Your task to perform on an android device: How do I get to the nearest Chipotle? Image 0: 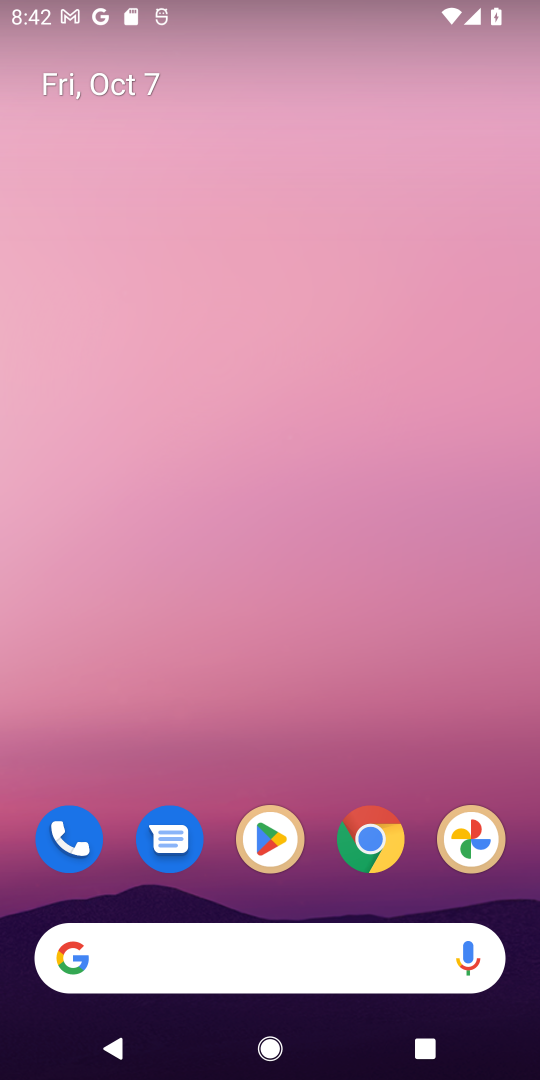
Step 0: click (361, 836)
Your task to perform on an android device: How do I get to the nearest Chipotle? Image 1: 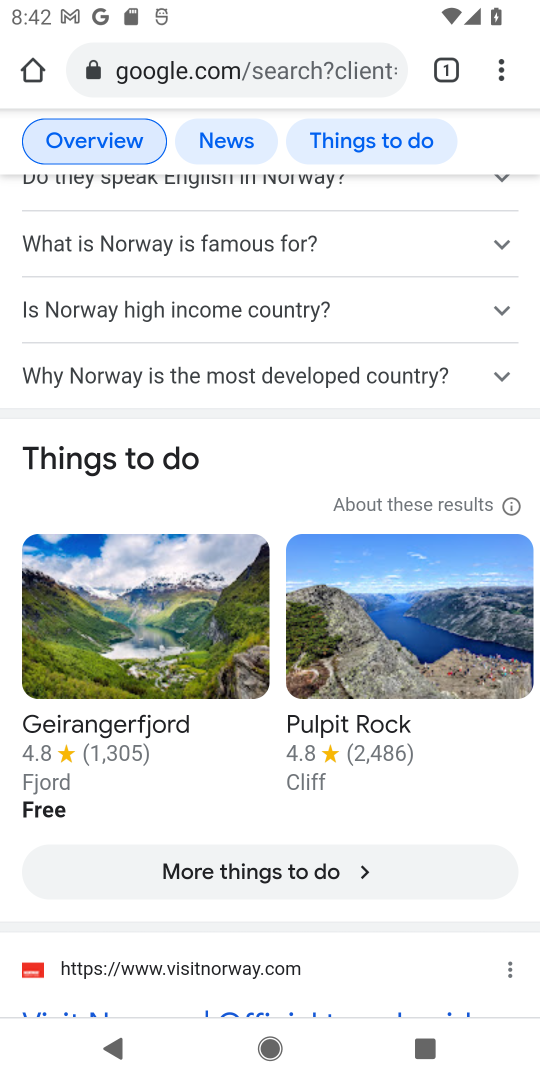
Step 1: click (156, 67)
Your task to perform on an android device: How do I get to the nearest Chipotle? Image 2: 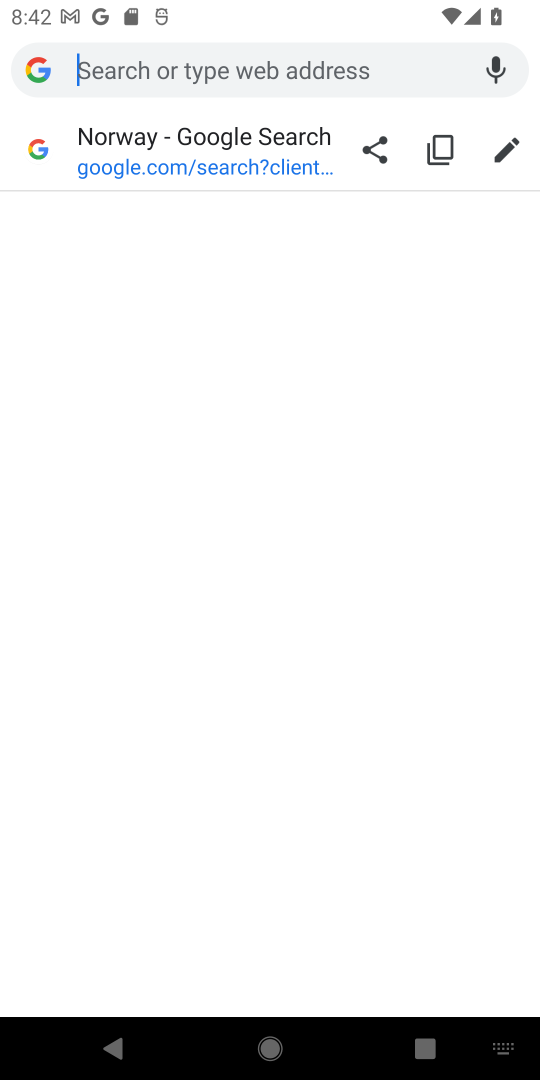
Step 2: type "nearest chipotle"
Your task to perform on an android device: How do I get to the nearest Chipotle? Image 3: 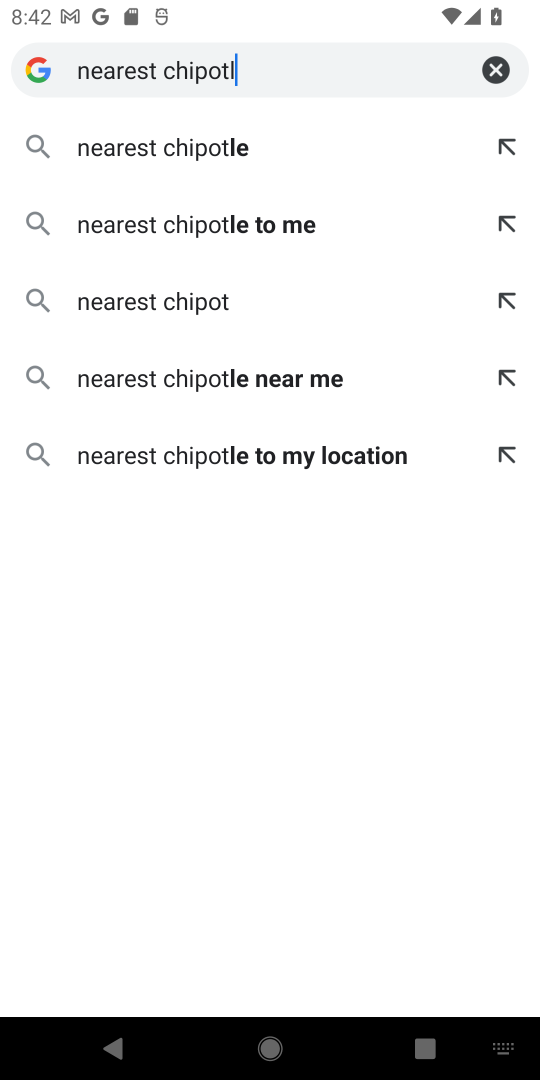
Step 3: type ""
Your task to perform on an android device: How do I get to the nearest Chipotle? Image 4: 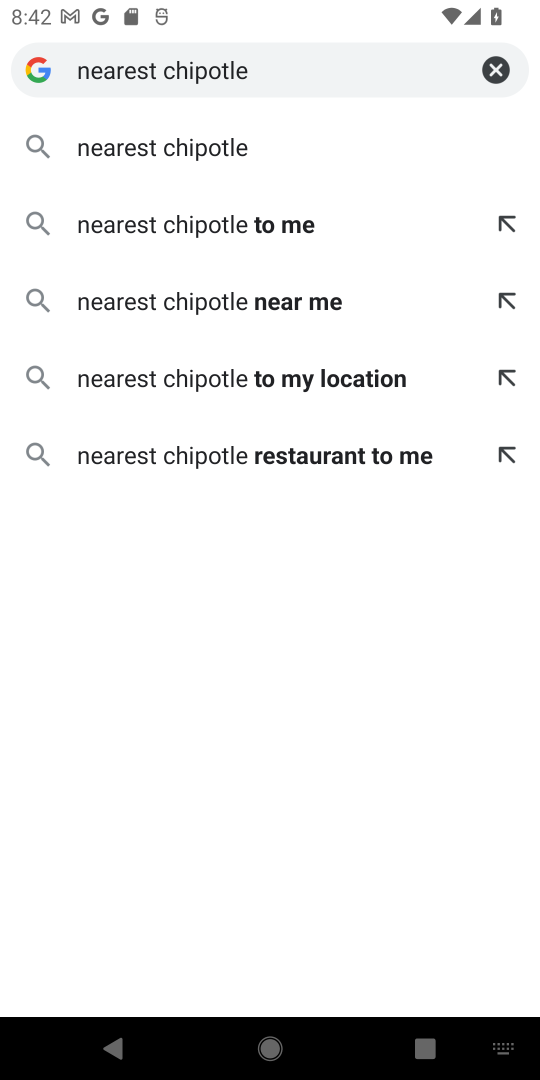
Step 4: click (223, 141)
Your task to perform on an android device: How do I get to the nearest Chipotle? Image 5: 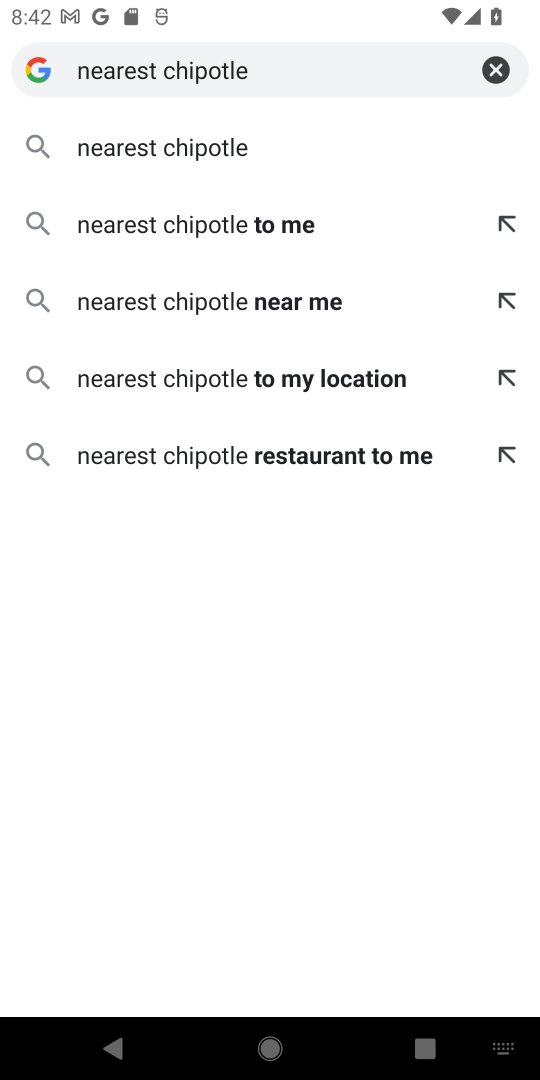
Step 5: click (194, 152)
Your task to perform on an android device: How do I get to the nearest Chipotle? Image 6: 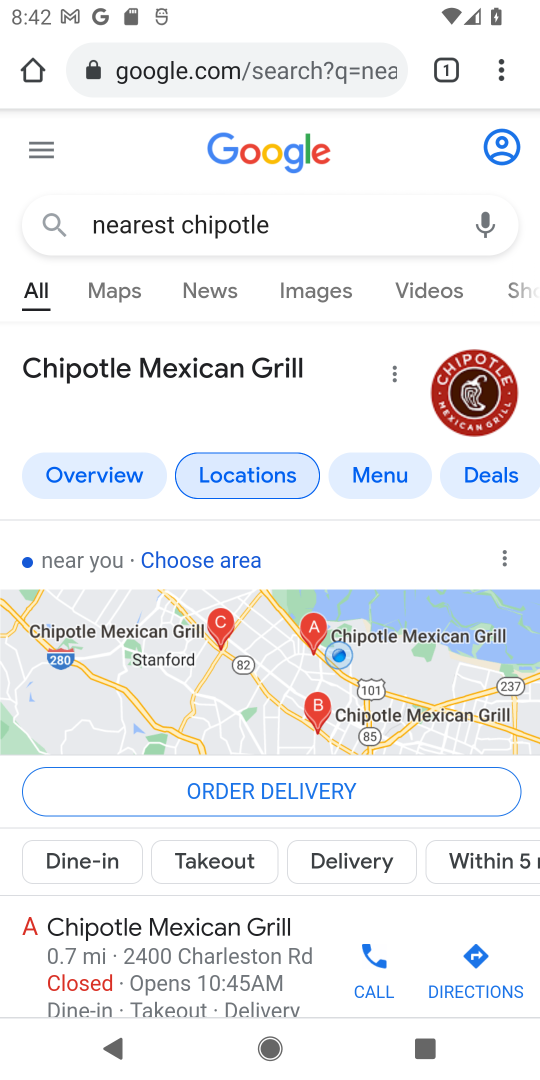
Step 6: drag from (318, 918) to (484, 446)
Your task to perform on an android device: How do I get to the nearest Chipotle? Image 7: 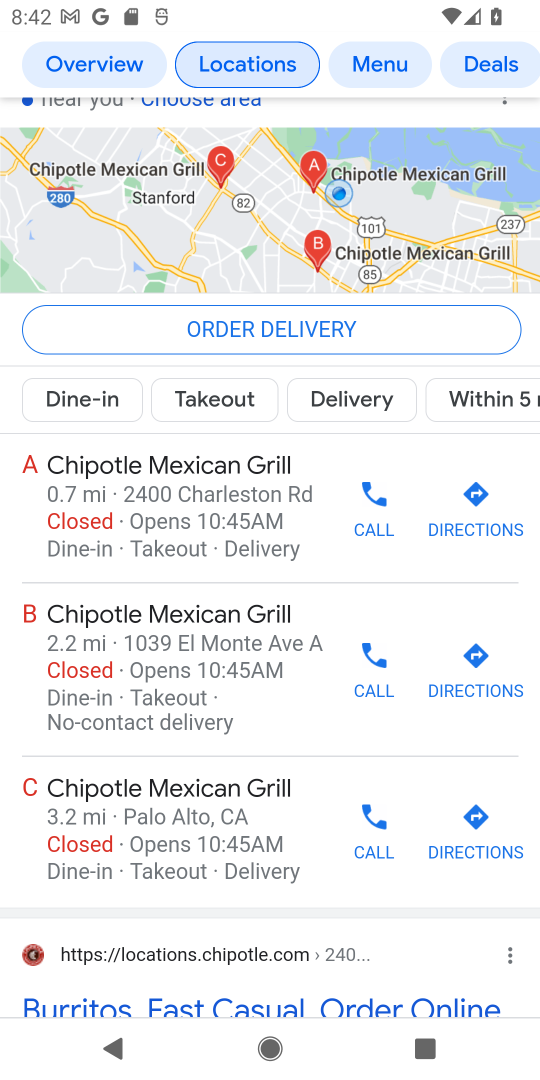
Step 7: drag from (231, 327) to (272, 859)
Your task to perform on an android device: How do I get to the nearest Chipotle? Image 8: 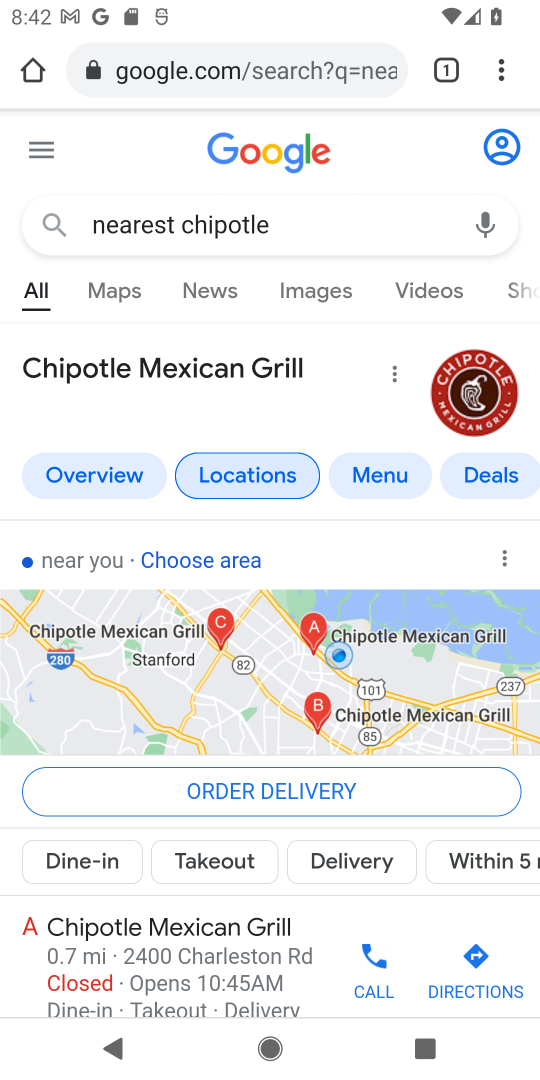
Step 8: click (239, 479)
Your task to perform on an android device: How do I get to the nearest Chipotle? Image 9: 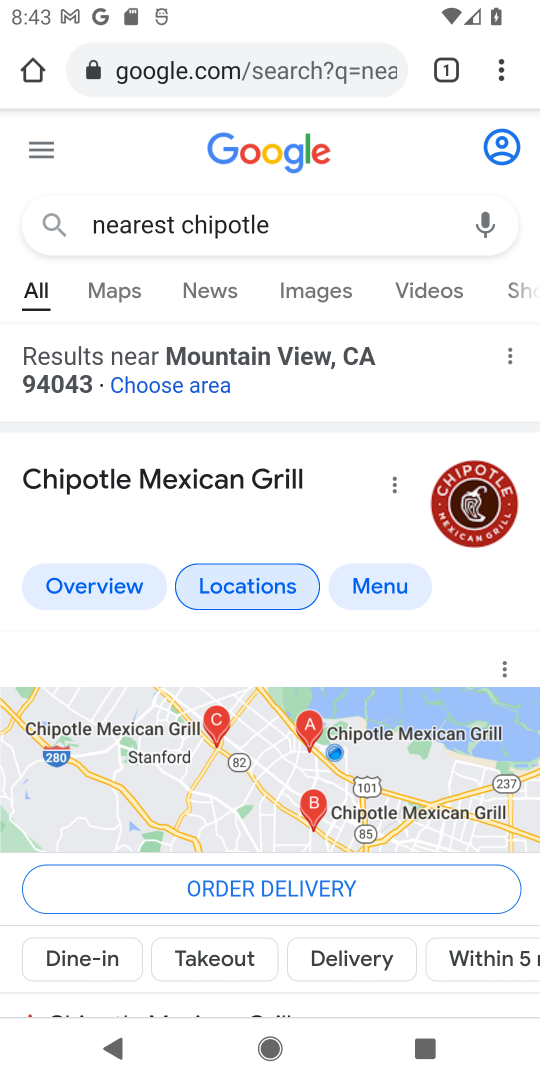
Step 9: drag from (389, 743) to (462, 268)
Your task to perform on an android device: How do I get to the nearest Chipotle? Image 10: 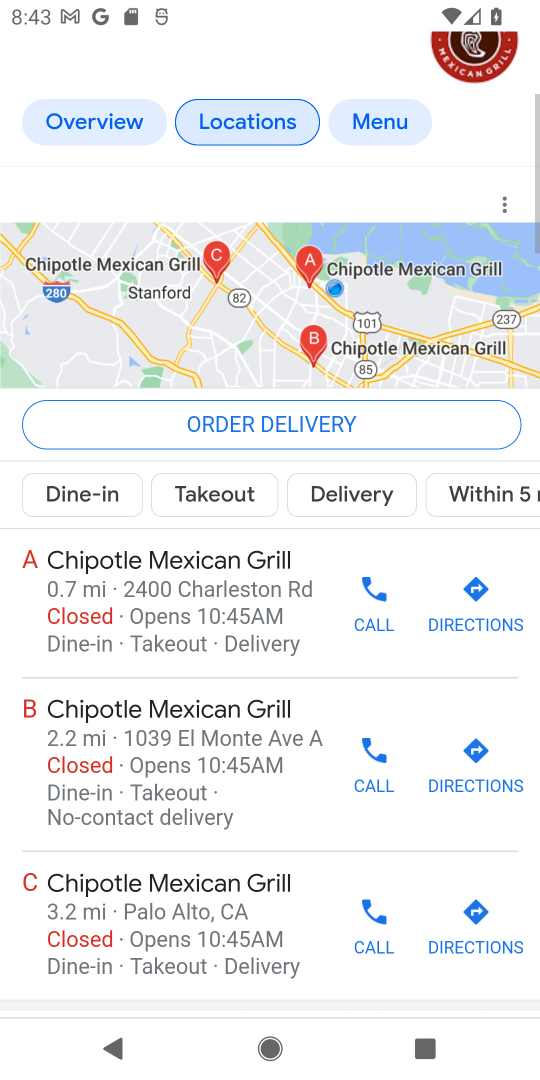
Step 10: drag from (304, 745) to (380, 330)
Your task to perform on an android device: How do I get to the nearest Chipotle? Image 11: 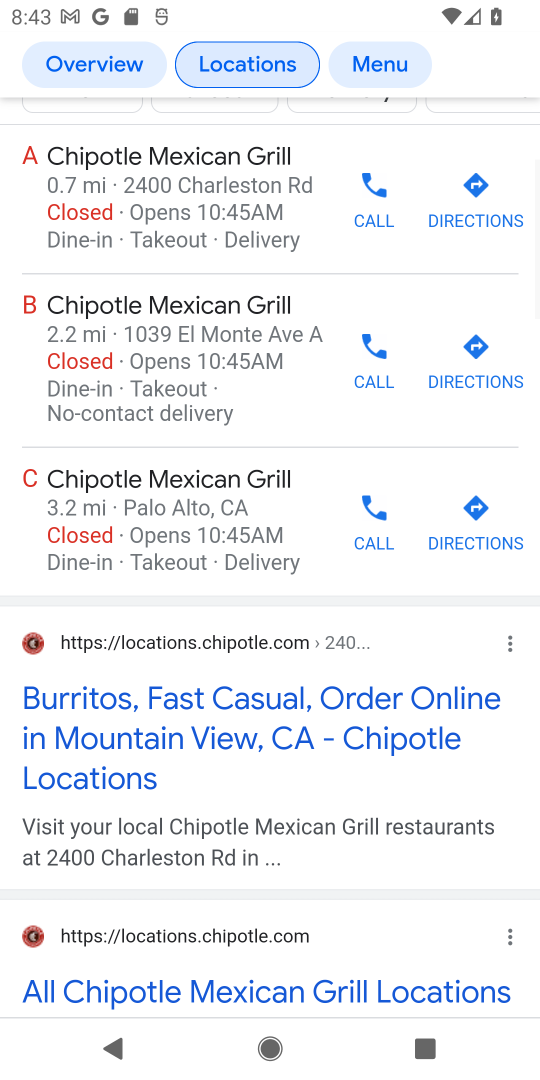
Step 11: drag from (220, 752) to (306, 398)
Your task to perform on an android device: How do I get to the nearest Chipotle? Image 12: 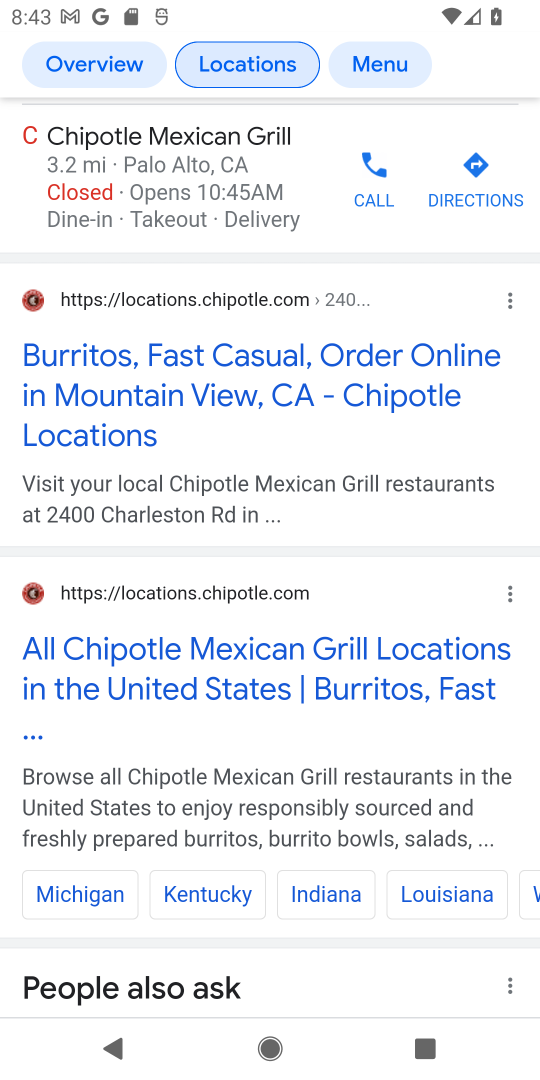
Step 12: drag from (441, 715) to (535, 390)
Your task to perform on an android device: How do I get to the nearest Chipotle? Image 13: 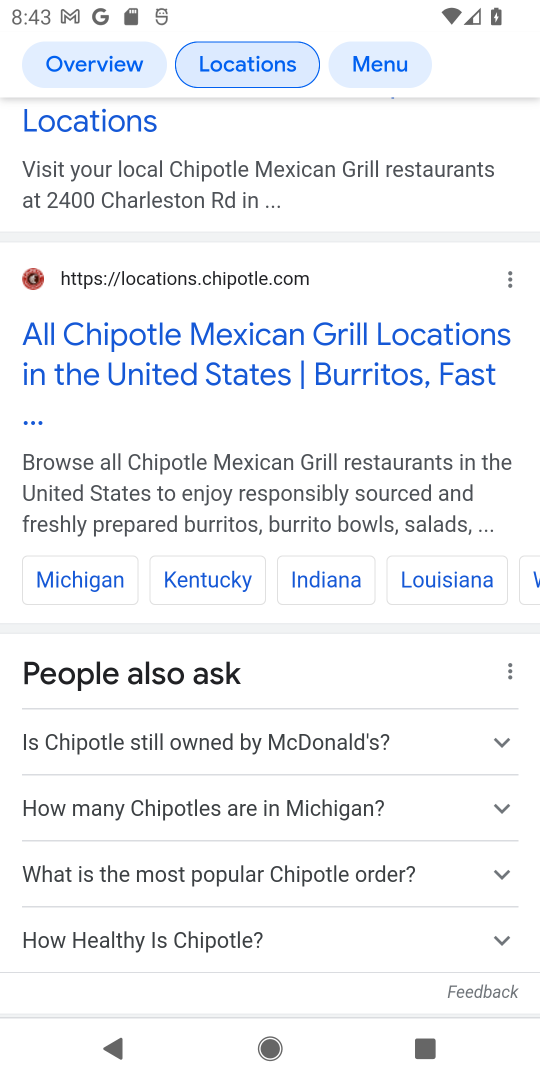
Step 13: drag from (399, 774) to (477, 321)
Your task to perform on an android device: How do I get to the nearest Chipotle? Image 14: 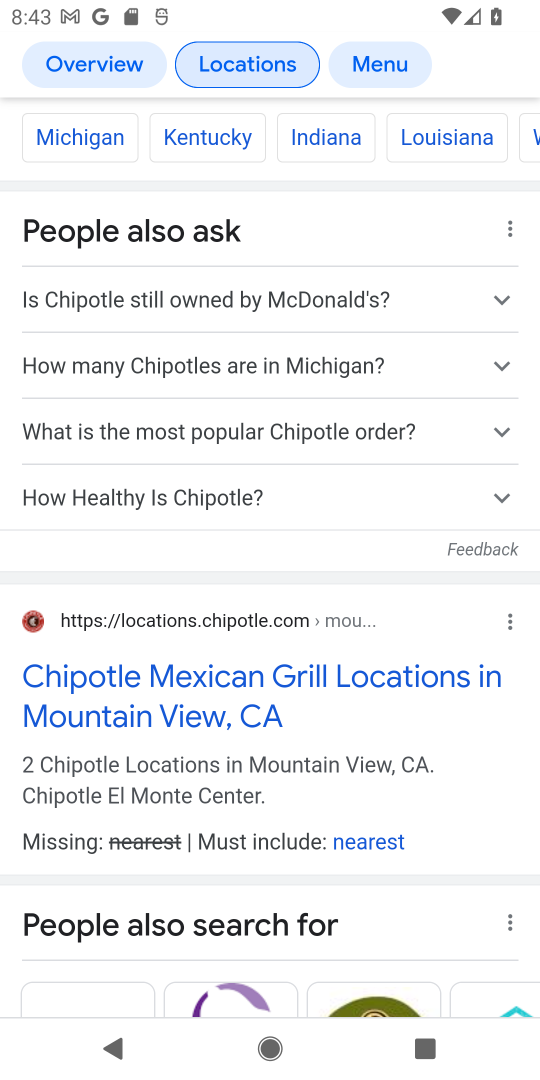
Step 14: drag from (330, 292) to (293, 985)
Your task to perform on an android device: How do I get to the nearest Chipotle? Image 15: 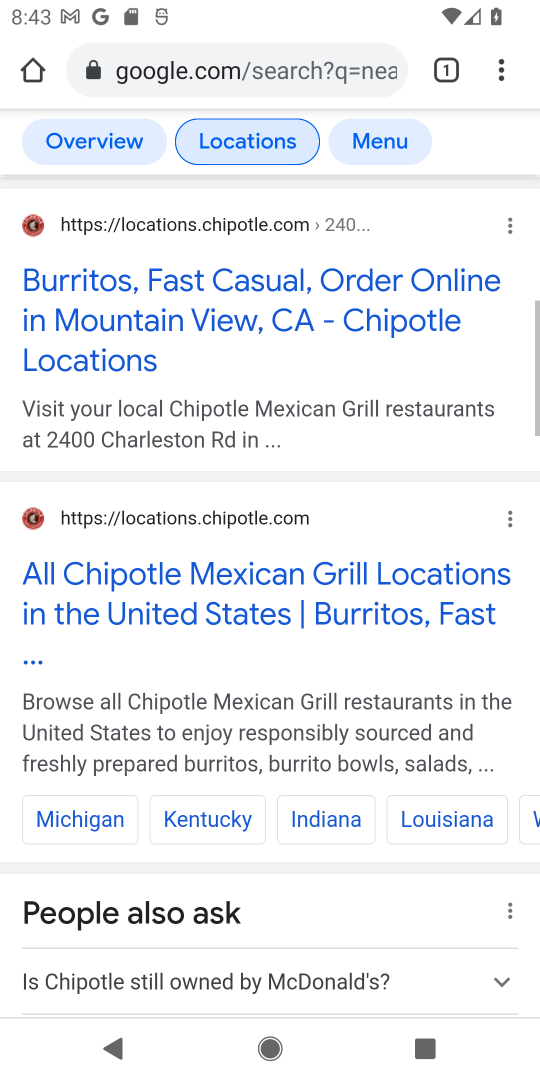
Step 15: drag from (332, 391) to (307, 901)
Your task to perform on an android device: How do I get to the nearest Chipotle? Image 16: 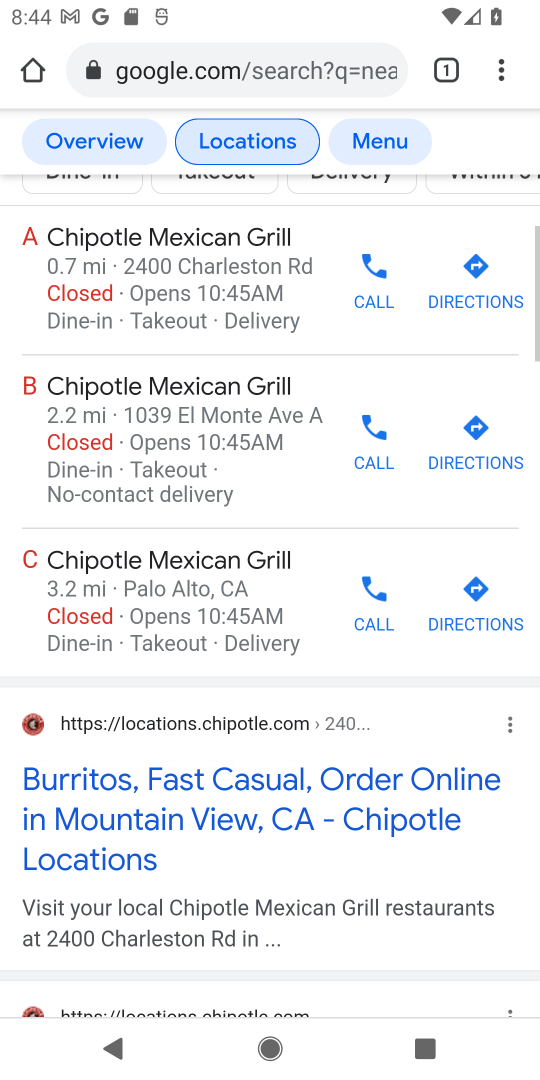
Step 16: drag from (273, 682) to (273, 983)
Your task to perform on an android device: How do I get to the nearest Chipotle? Image 17: 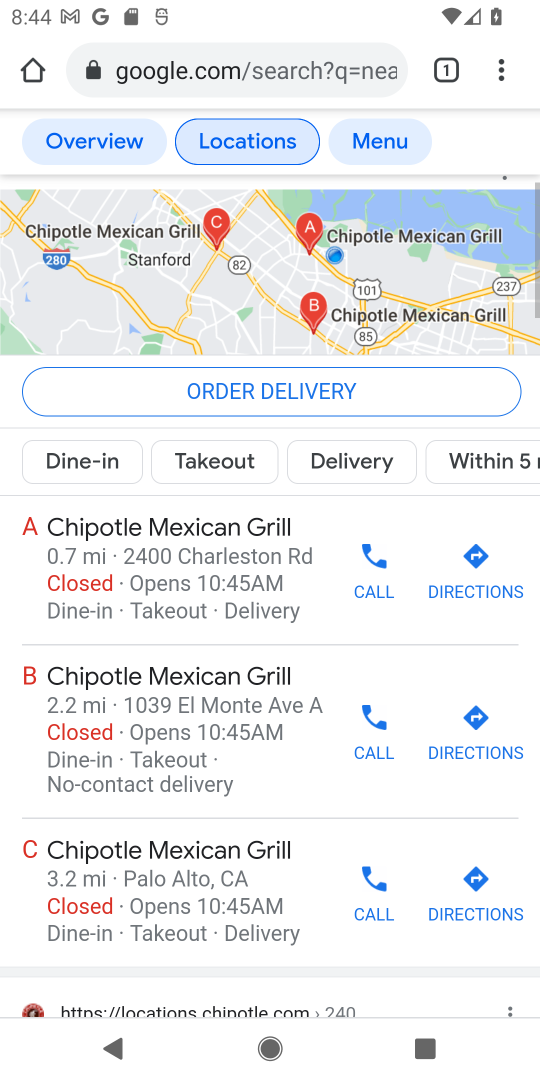
Step 17: drag from (274, 336) to (332, 818)
Your task to perform on an android device: How do I get to the nearest Chipotle? Image 18: 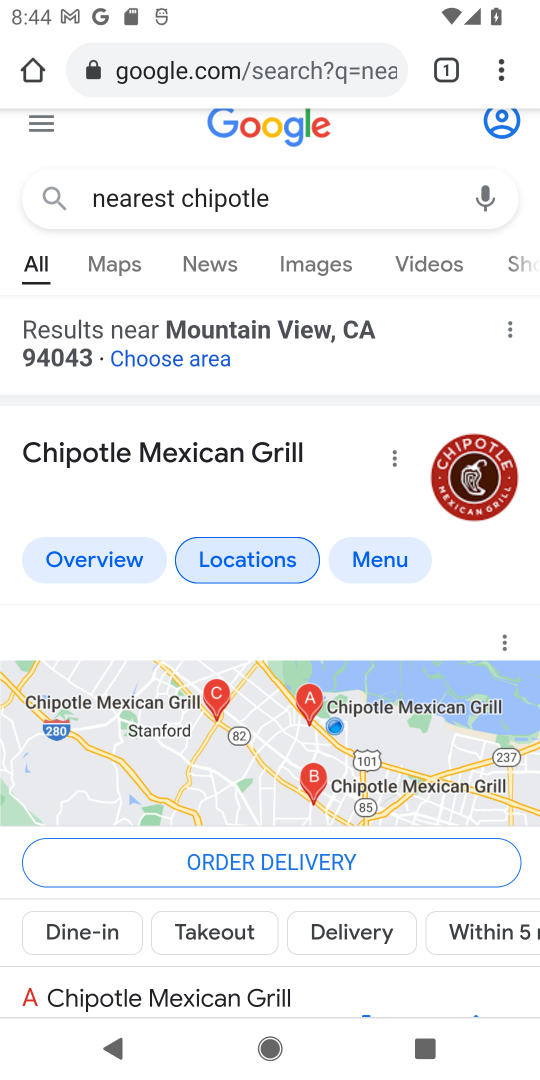
Step 18: click (253, 730)
Your task to perform on an android device: How do I get to the nearest Chipotle? Image 19: 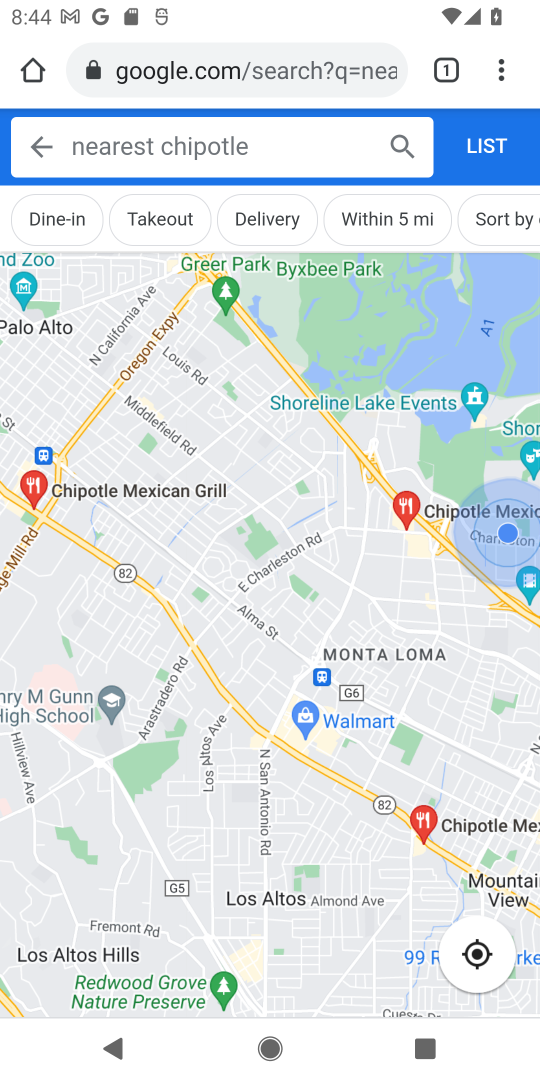
Step 19: task complete